Your task to perform on an android device: Open notification settings Image 0: 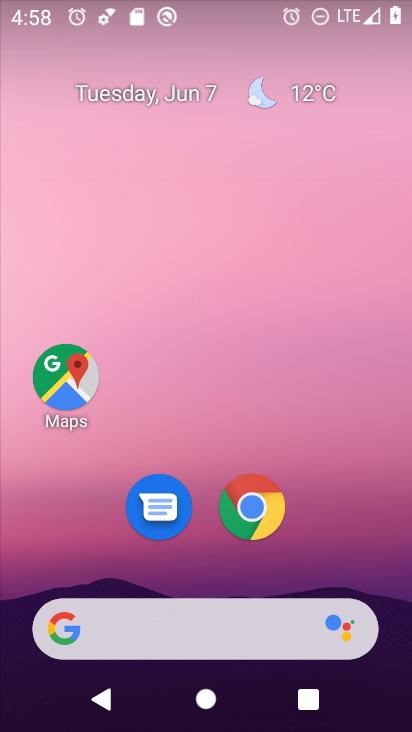
Step 0: drag from (334, 515) to (245, 0)
Your task to perform on an android device: Open notification settings Image 1: 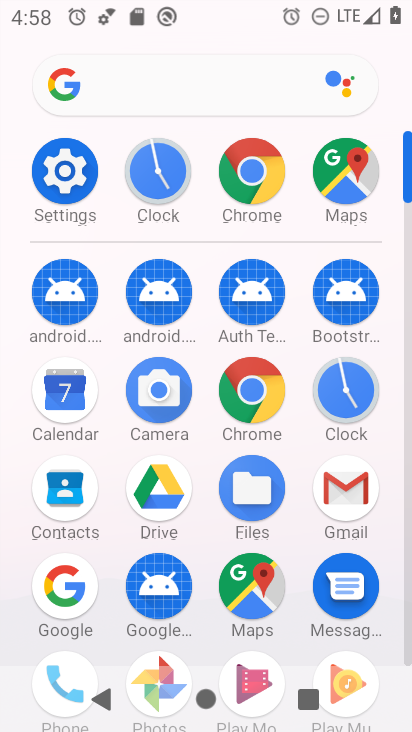
Step 1: click (68, 164)
Your task to perform on an android device: Open notification settings Image 2: 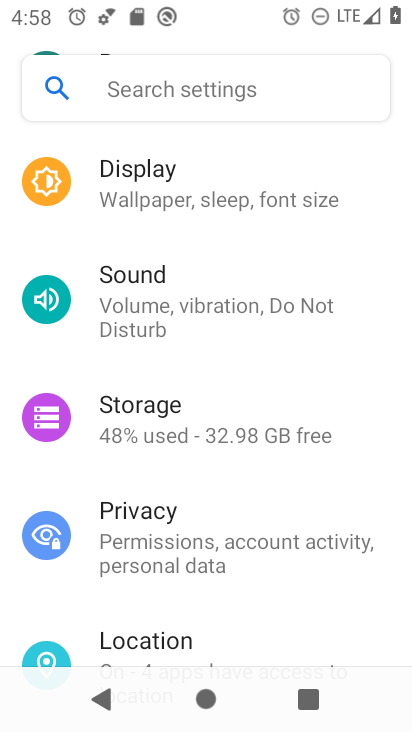
Step 2: drag from (317, 328) to (303, 586)
Your task to perform on an android device: Open notification settings Image 3: 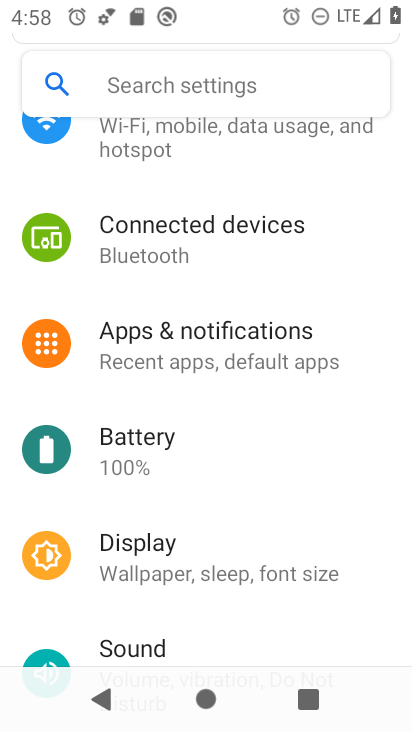
Step 3: drag from (313, 222) to (276, 580)
Your task to perform on an android device: Open notification settings Image 4: 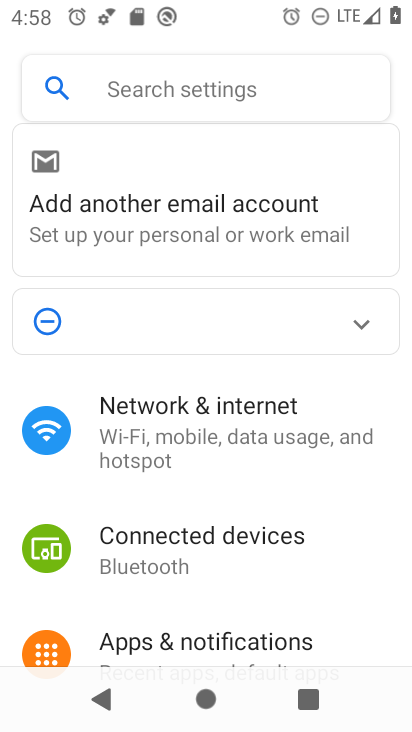
Step 4: click (306, 342)
Your task to perform on an android device: Open notification settings Image 5: 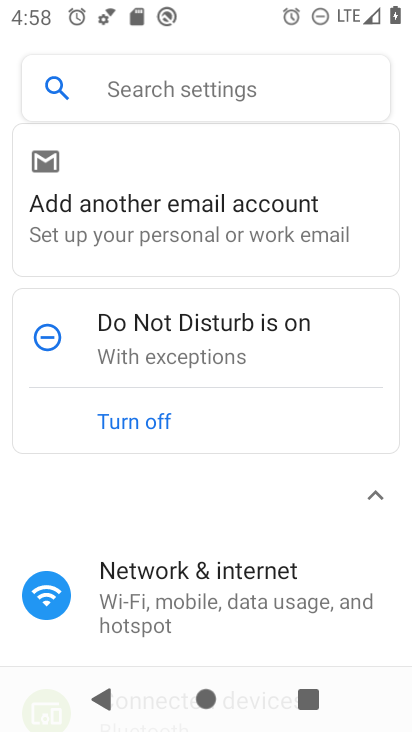
Step 5: drag from (254, 587) to (288, 256)
Your task to perform on an android device: Open notification settings Image 6: 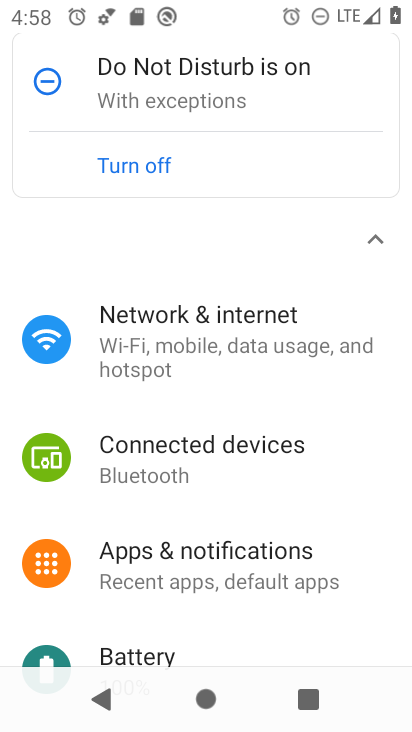
Step 6: click (218, 547)
Your task to perform on an android device: Open notification settings Image 7: 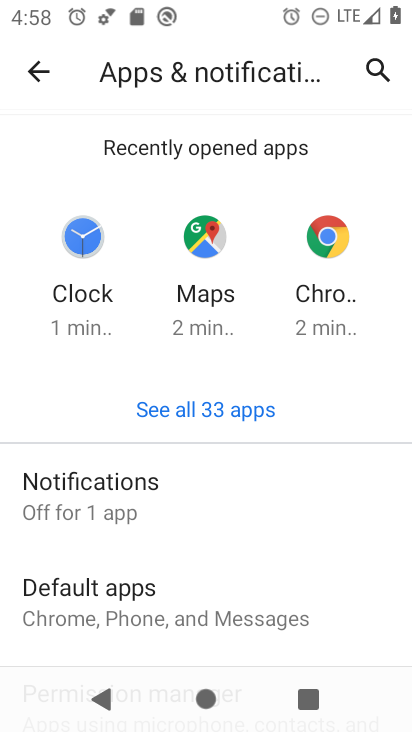
Step 7: click (188, 479)
Your task to perform on an android device: Open notification settings Image 8: 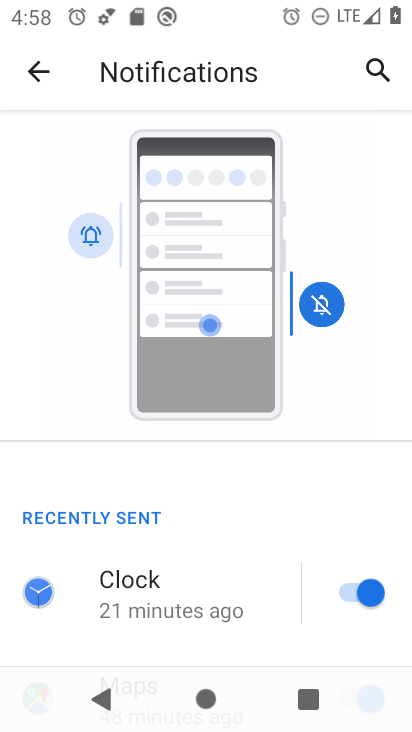
Step 8: task complete